Your task to perform on an android device: Play the last video I watched on Youtube Image 0: 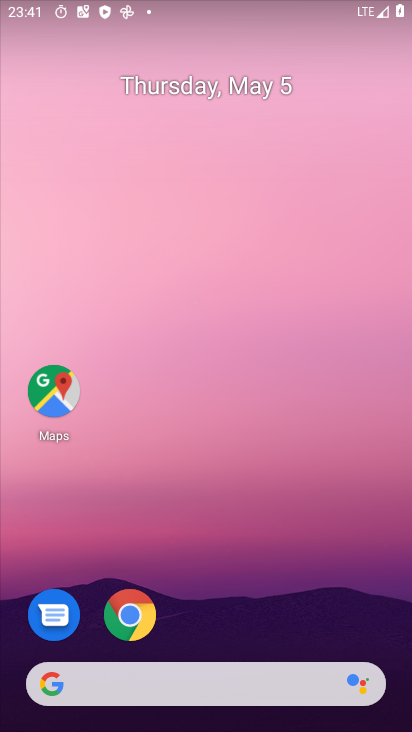
Step 0: drag from (261, 610) to (274, 113)
Your task to perform on an android device: Play the last video I watched on Youtube Image 1: 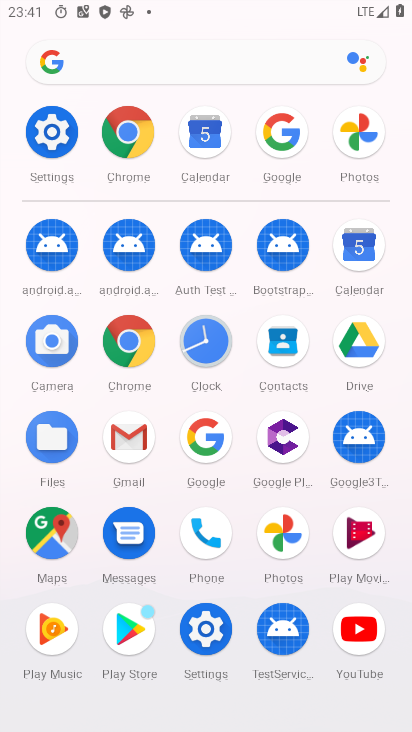
Step 1: click (355, 635)
Your task to perform on an android device: Play the last video I watched on Youtube Image 2: 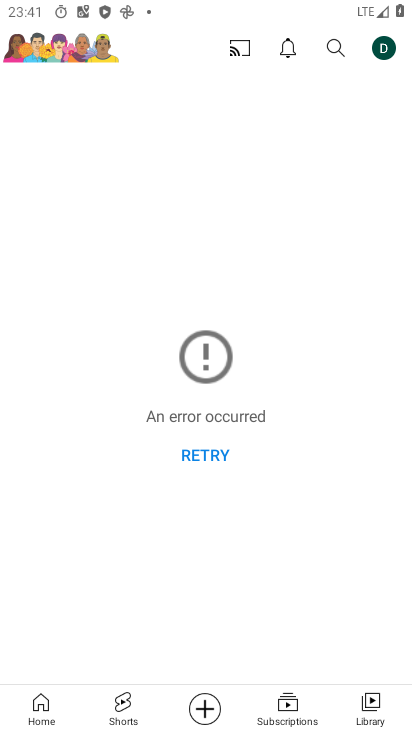
Step 2: task complete